Your task to perform on an android device: Is it going to rain this weekend? Image 0: 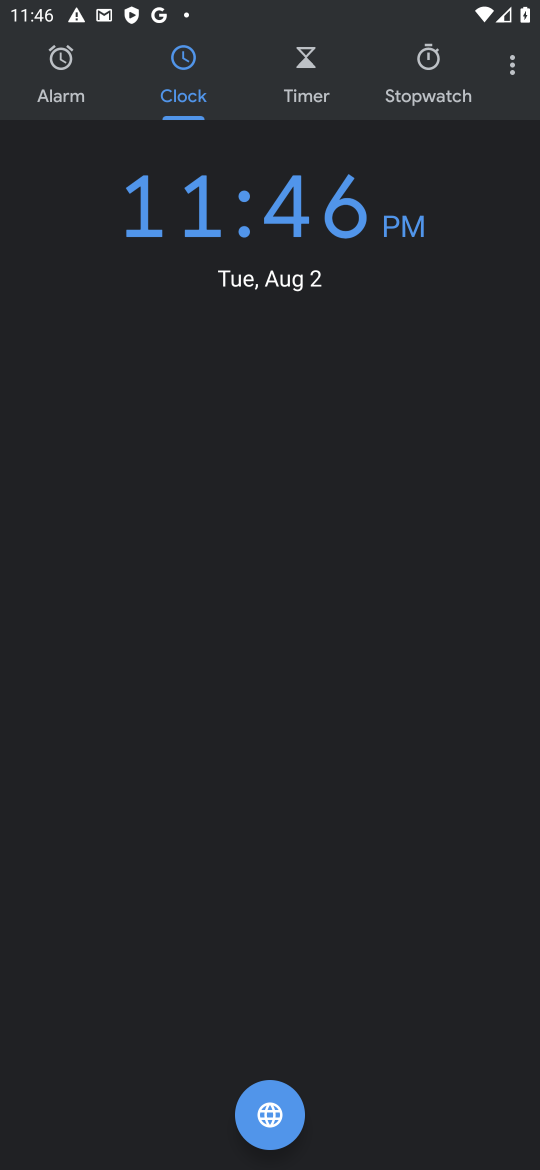
Step 0: task complete